Your task to perform on an android device: Add razer blade to the cart on bestbuy, then select checkout. Image 0: 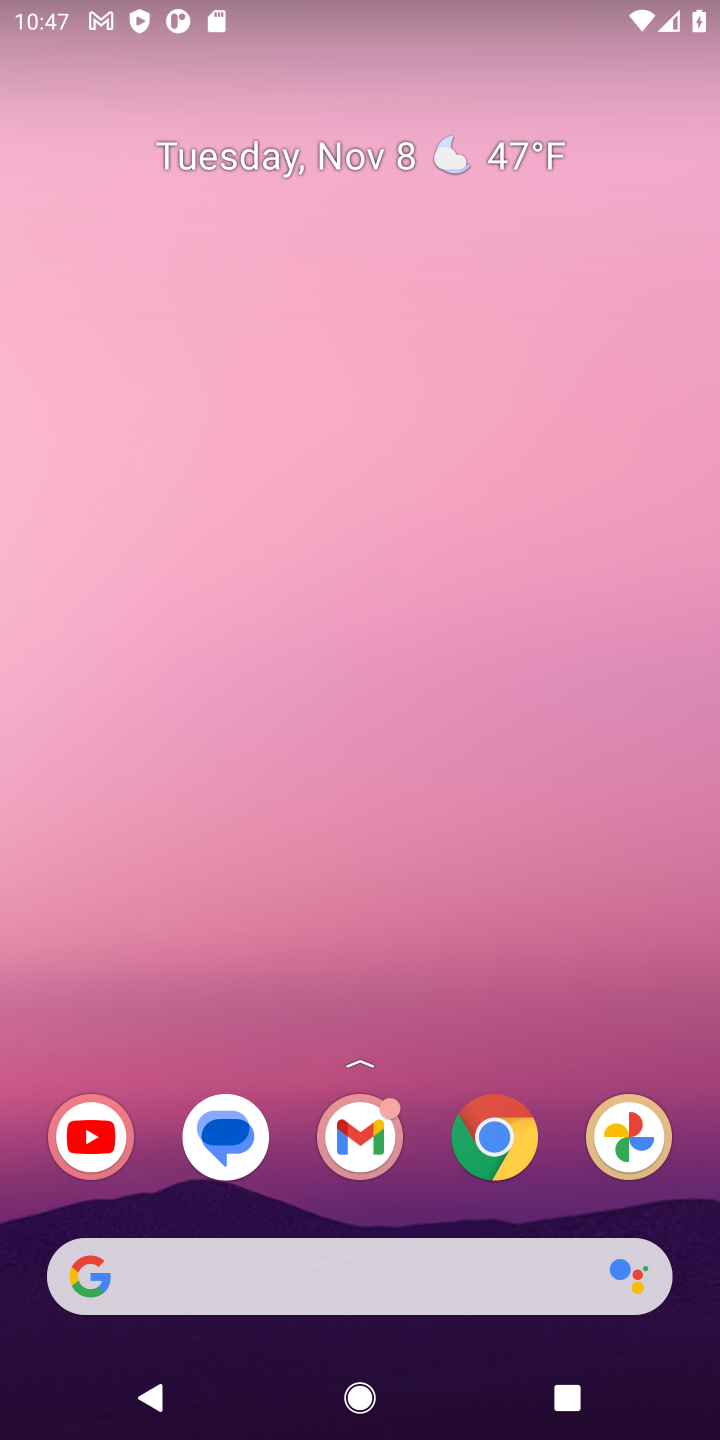
Step 0: click (495, 1140)
Your task to perform on an android device: Add razer blade to the cart on bestbuy, then select checkout. Image 1: 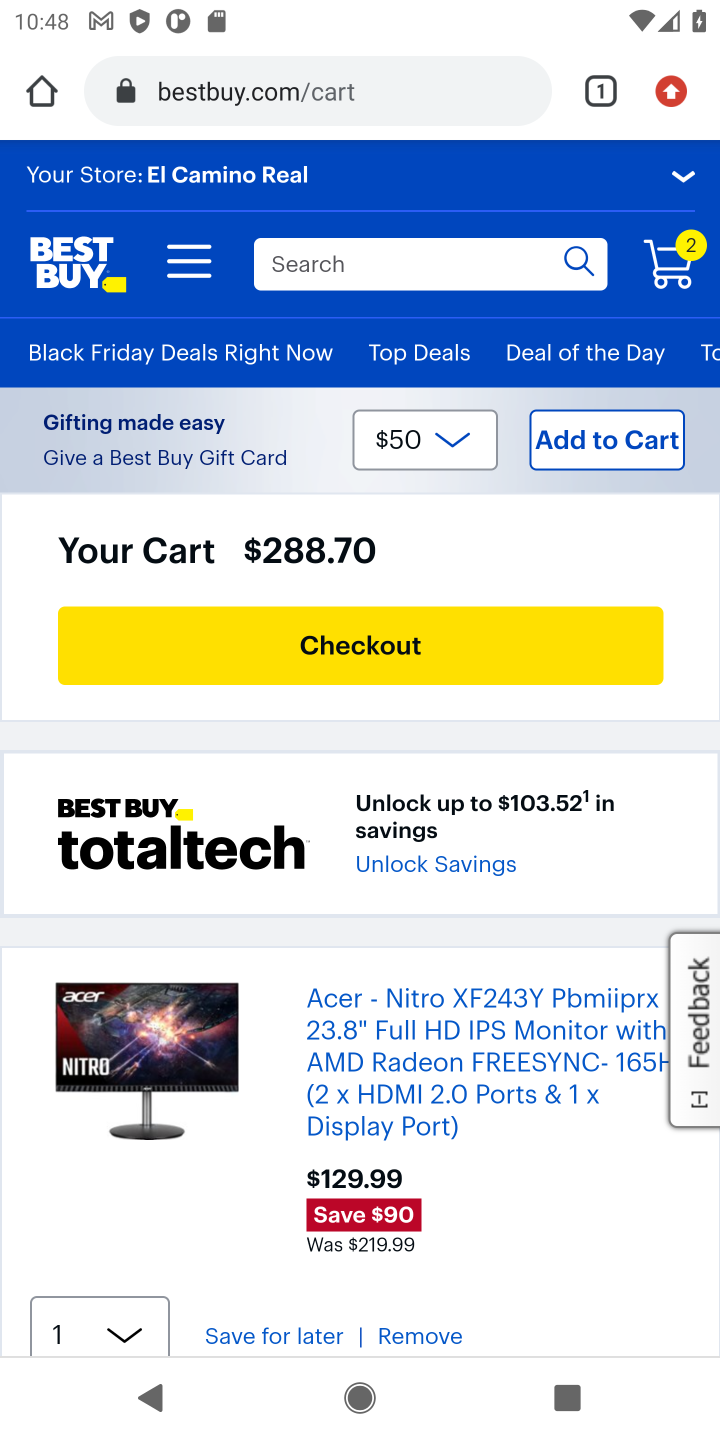
Step 1: click (415, 103)
Your task to perform on an android device: Add razer blade to the cart on bestbuy, then select checkout. Image 2: 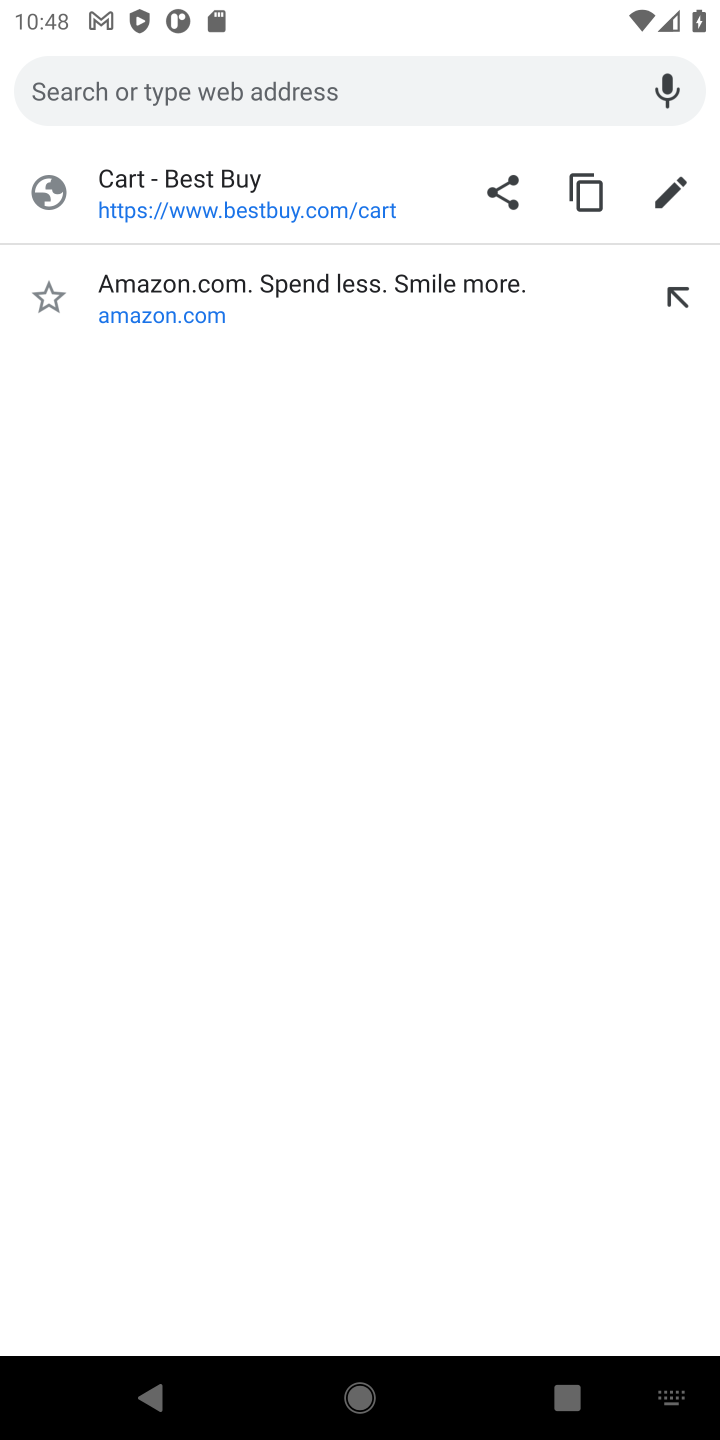
Step 2: type "bestbuy"
Your task to perform on an android device: Add razer blade to the cart on bestbuy, then select checkout. Image 3: 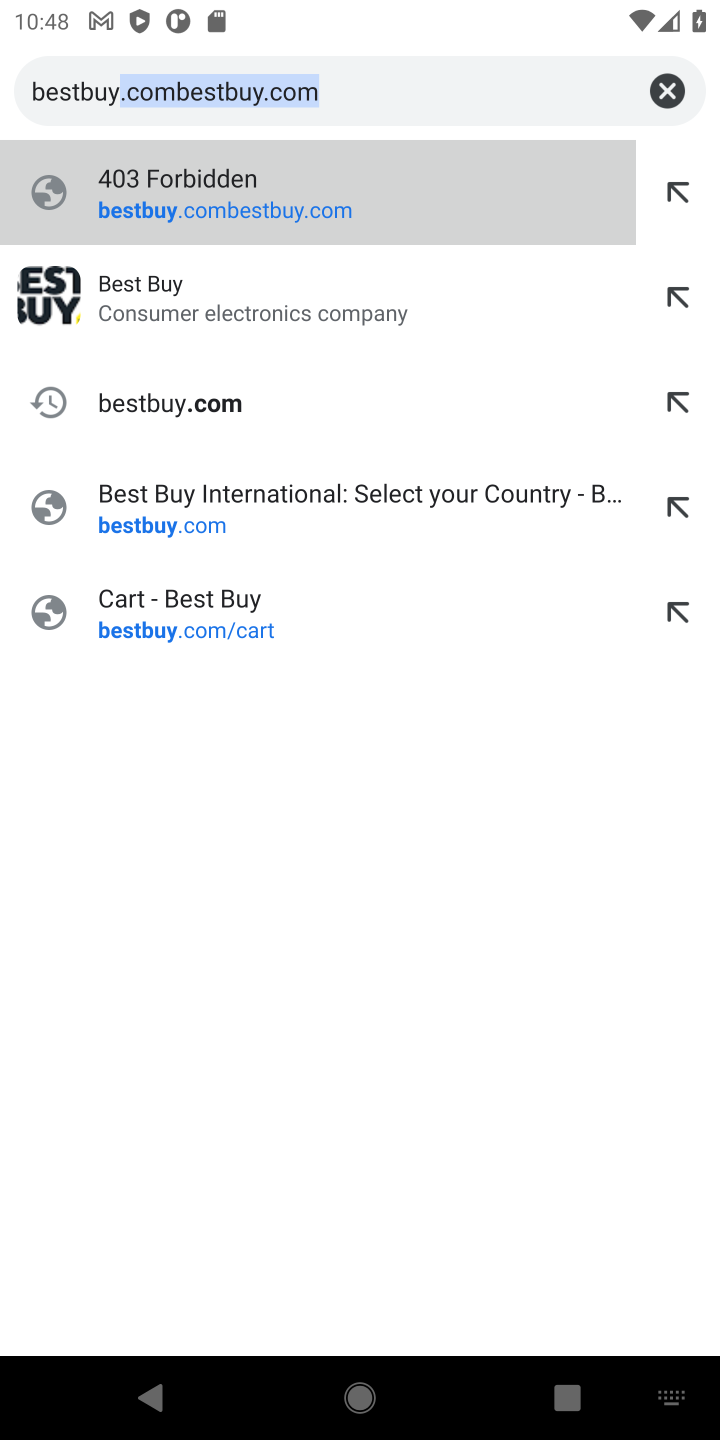
Step 3: click (203, 302)
Your task to perform on an android device: Add razer blade to the cart on bestbuy, then select checkout. Image 4: 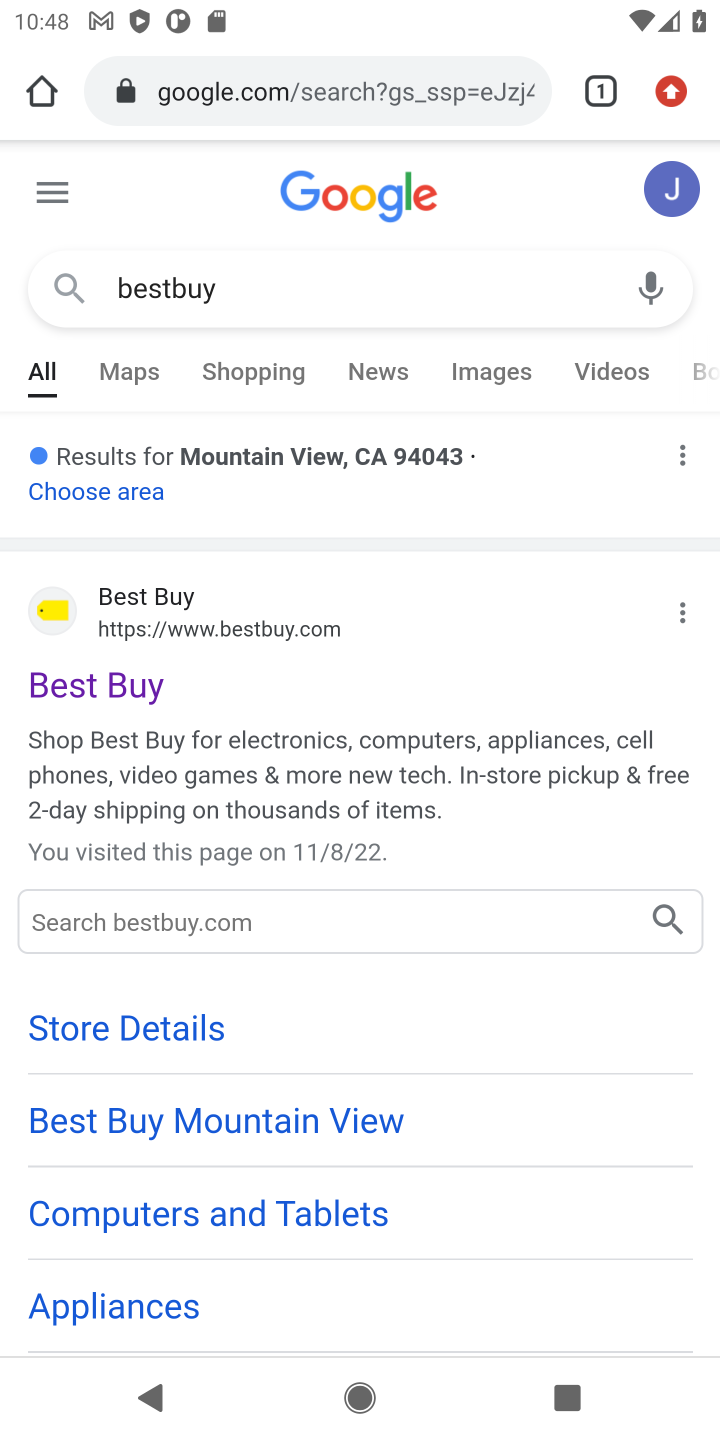
Step 4: click (156, 704)
Your task to perform on an android device: Add razer blade to the cart on bestbuy, then select checkout. Image 5: 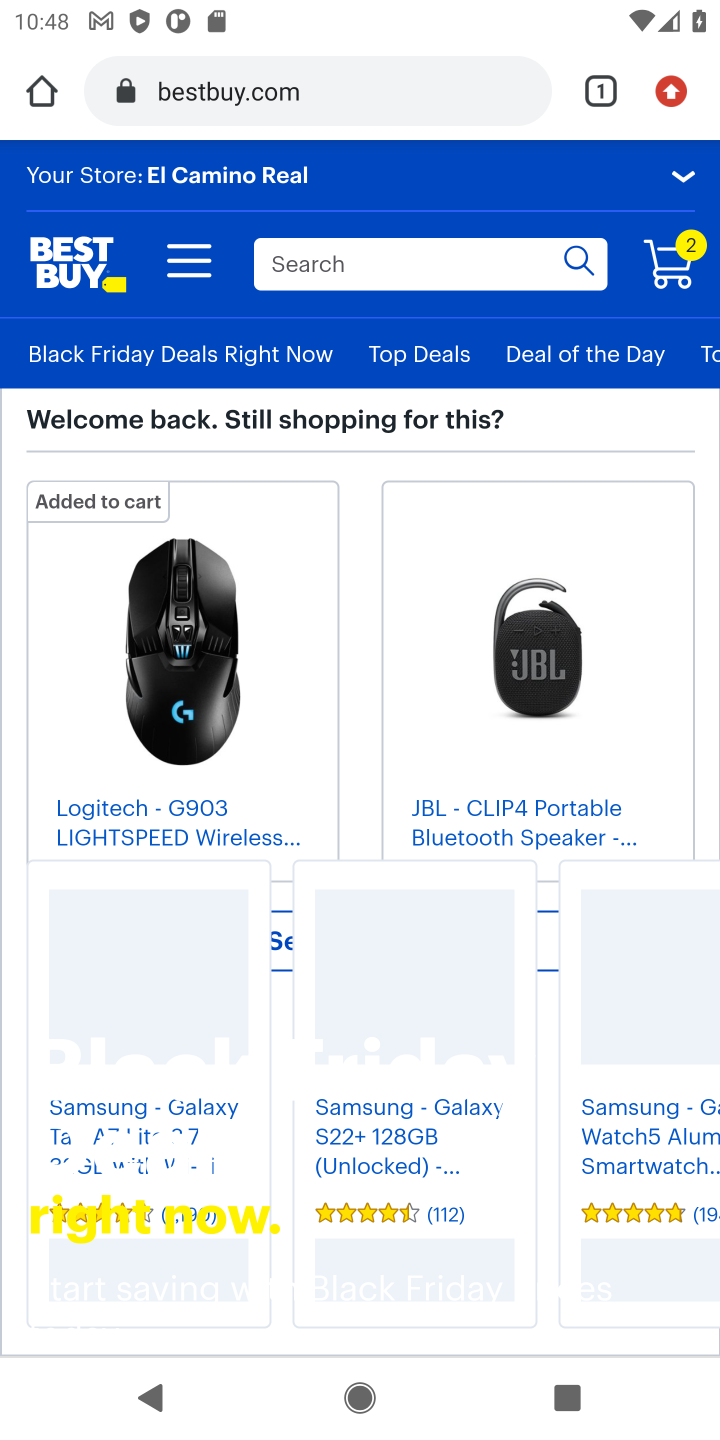
Step 5: click (427, 261)
Your task to perform on an android device: Add razer blade to the cart on bestbuy, then select checkout. Image 6: 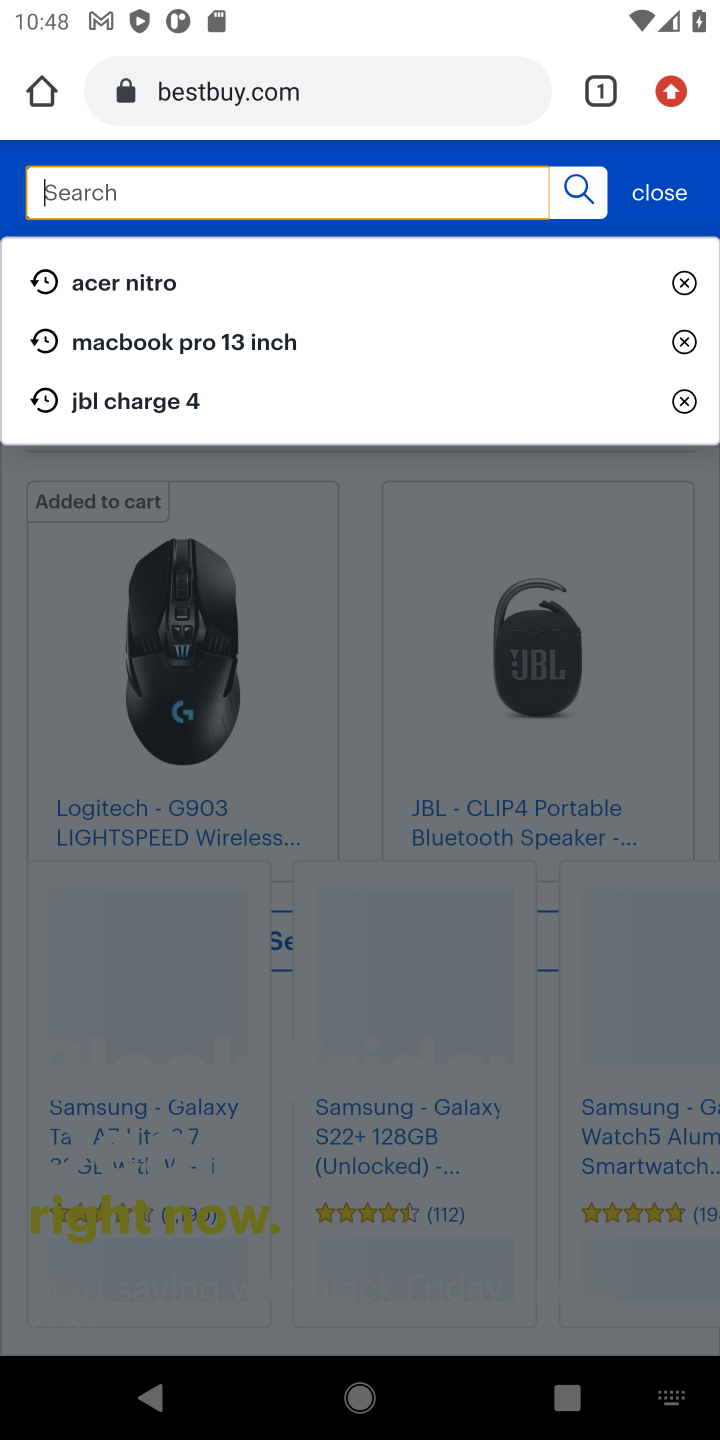
Step 6: type "razer blade"
Your task to perform on an android device: Add razer blade to the cart on bestbuy, then select checkout. Image 7: 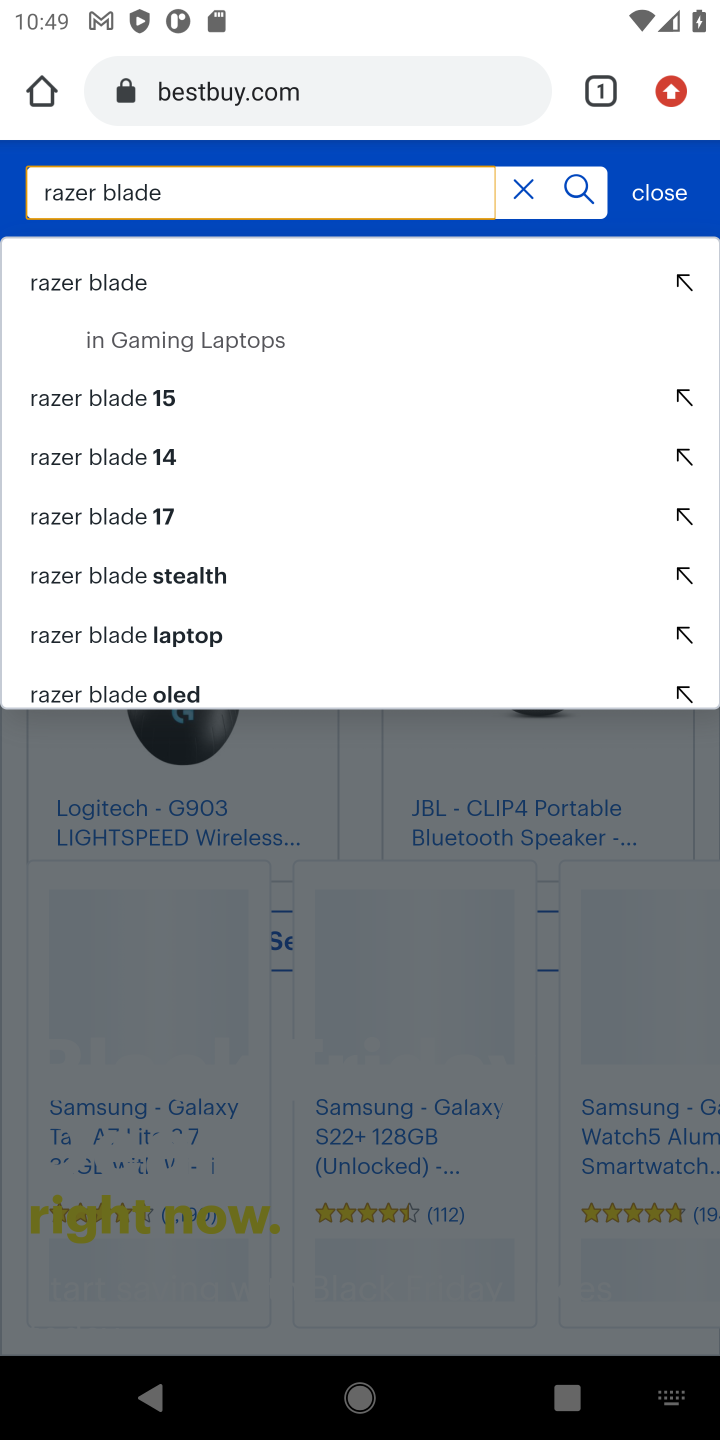
Step 7: click (64, 282)
Your task to perform on an android device: Add razer blade to the cart on bestbuy, then select checkout. Image 8: 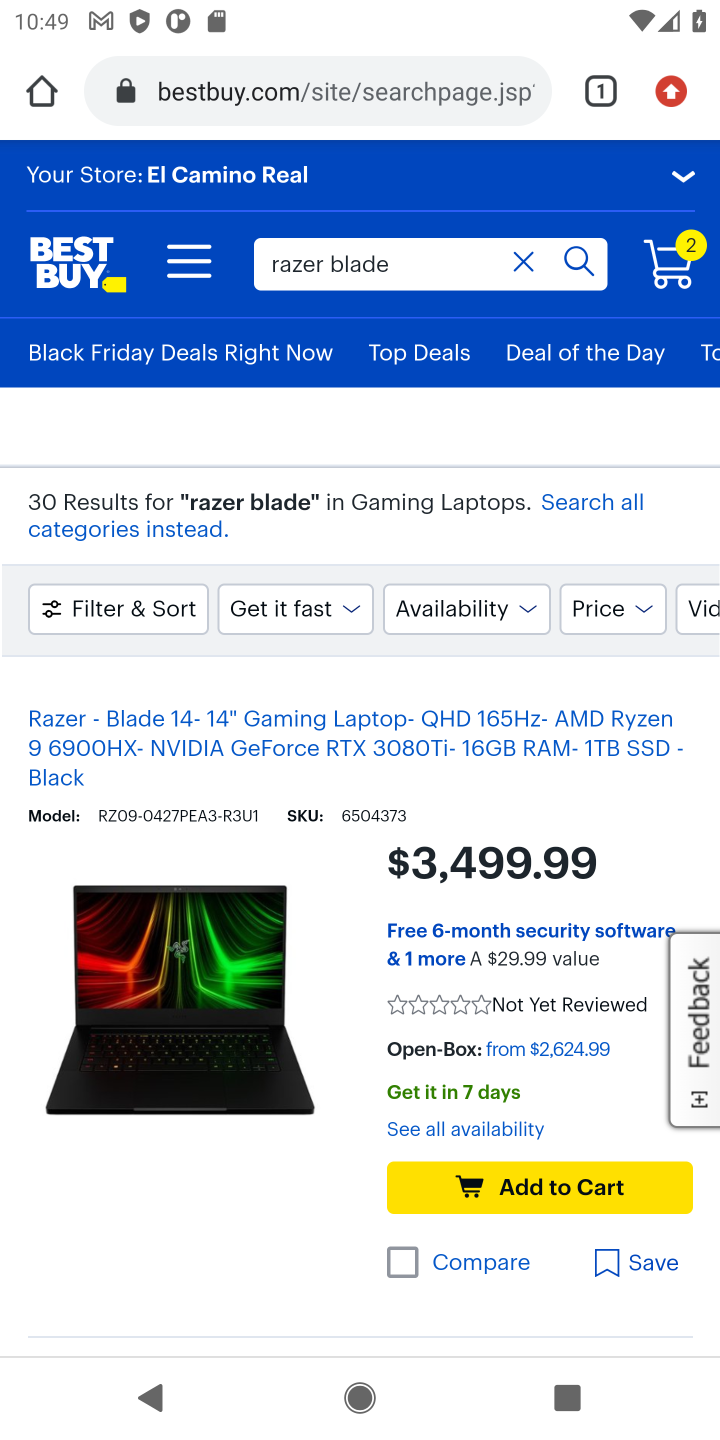
Step 8: click (509, 1186)
Your task to perform on an android device: Add razer blade to the cart on bestbuy, then select checkout. Image 9: 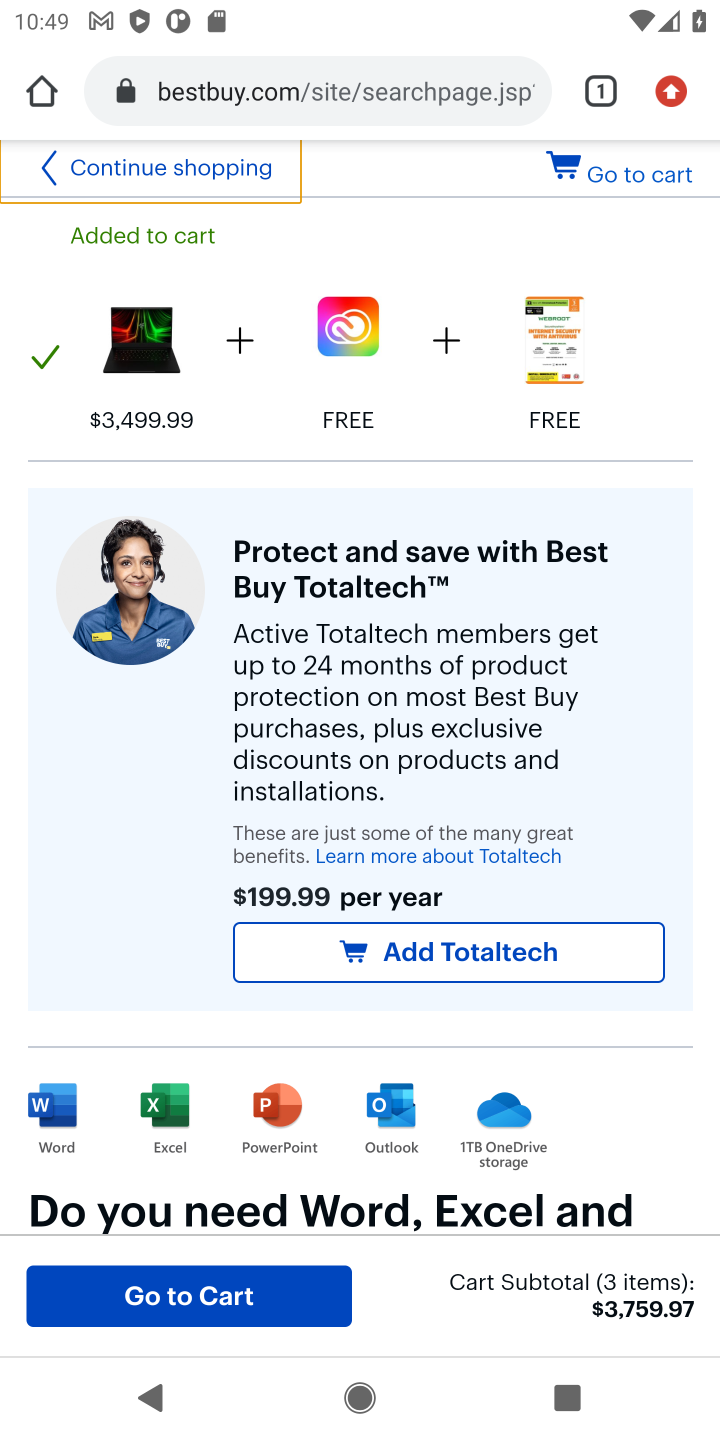
Step 9: click (217, 1294)
Your task to perform on an android device: Add razer blade to the cart on bestbuy, then select checkout. Image 10: 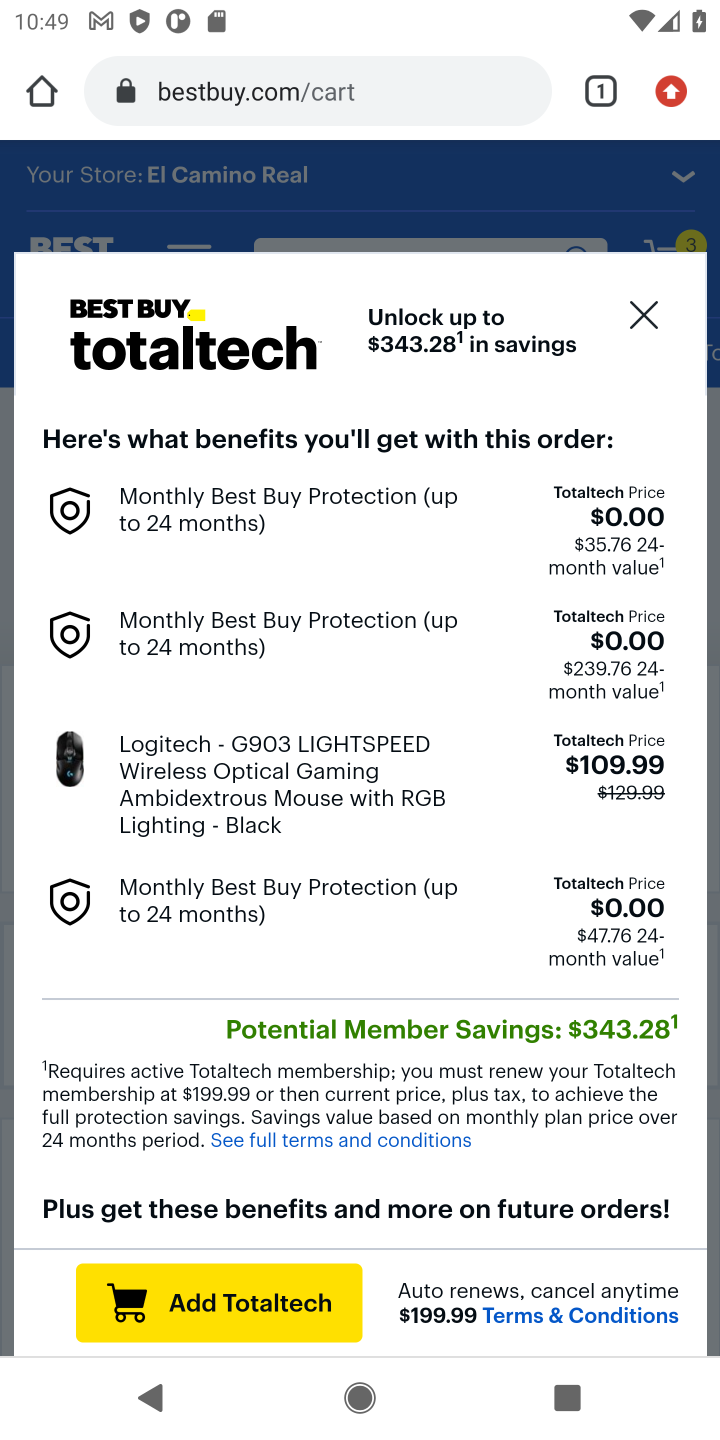
Step 10: click (642, 315)
Your task to perform on an android device: Add razer blade to the cart on bestbuy, then select checkout. Image 11: 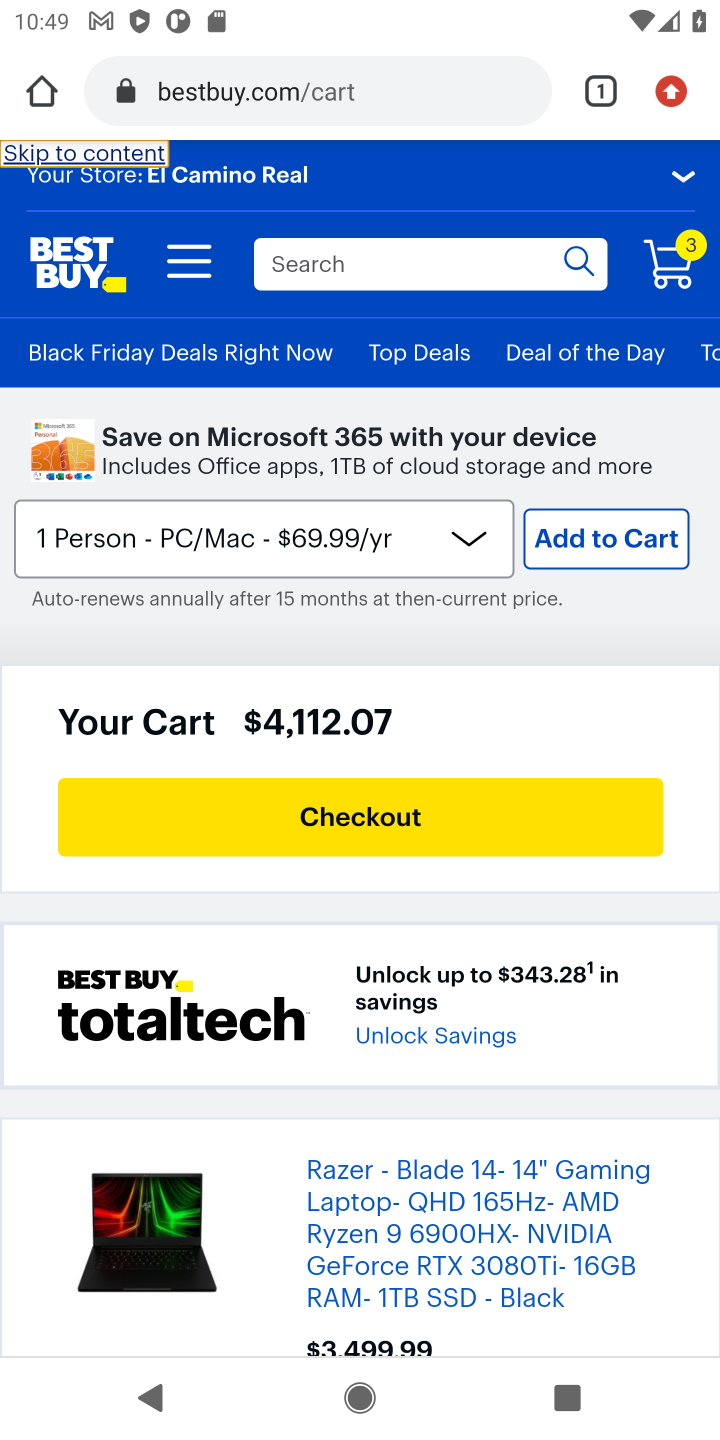
Step 11: click (366, 809)
Your task to perform on an android device: Add razer blade to the cart on bestbuy, then select checkout. Image 12: 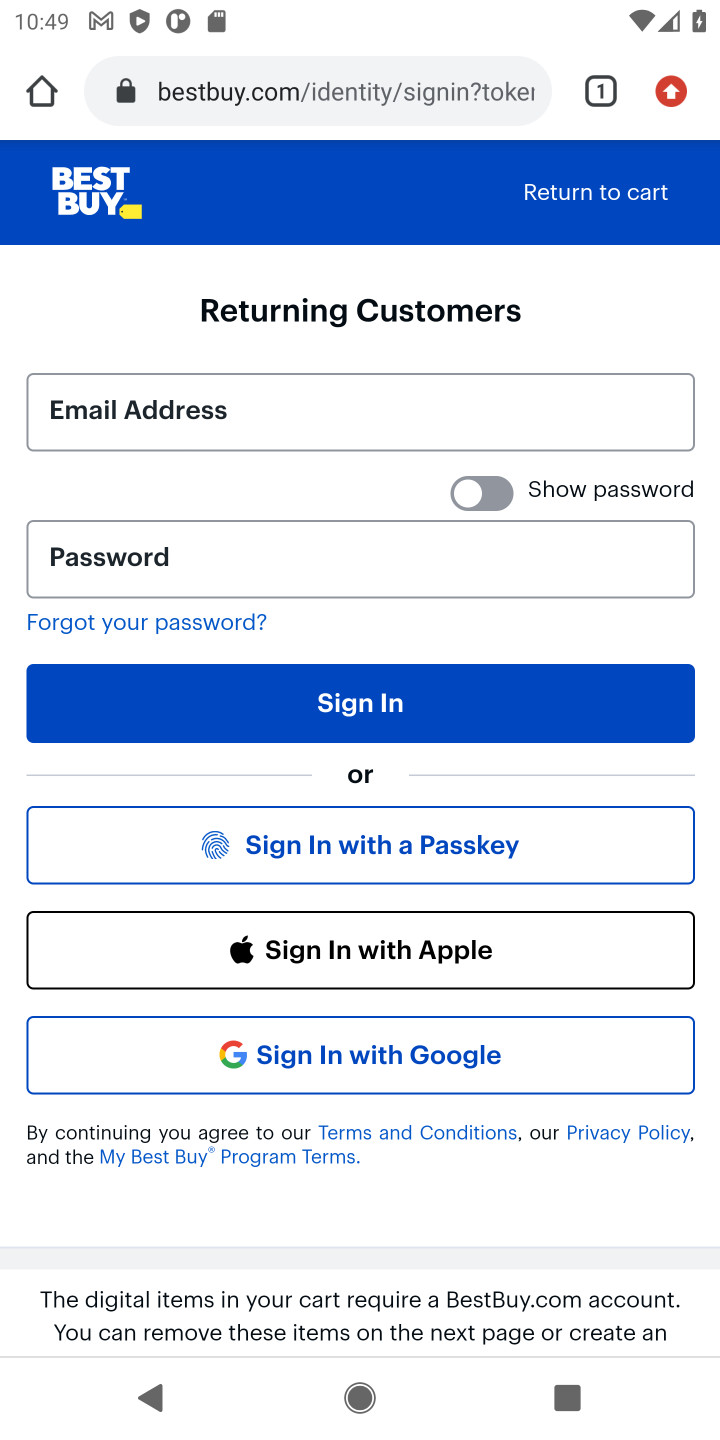
Step 12: task complete